Your task to perform on an android device: Open Yahoo.com Image 0: 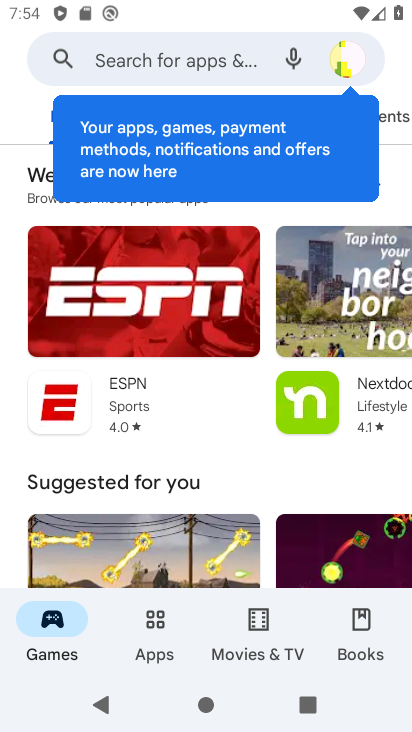
Step 0: press home button
Your task to perform on an android device: Open Yahoo.com Image 1: 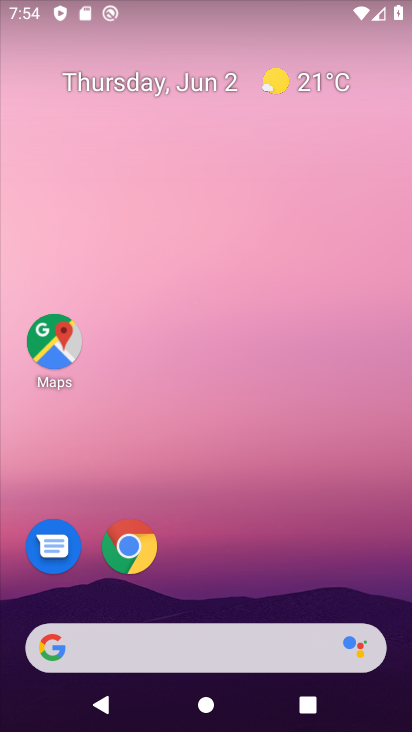
Step 1: click (231, 647)
Your task to perform on an android device: Open Yahoo.com Image 2: 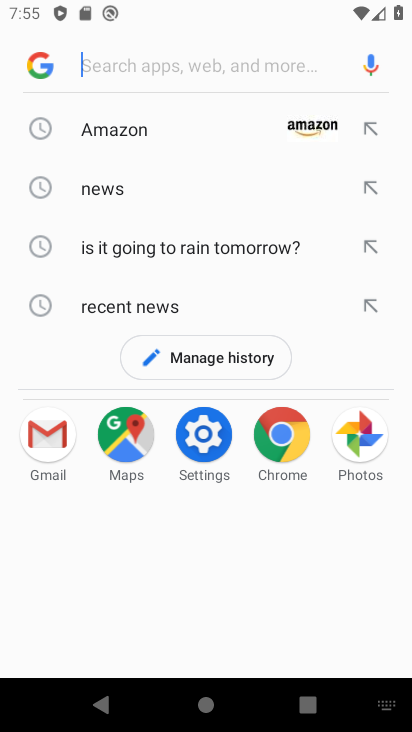
Step 2: type "yahoo.com"
Your task to perform on an android device: Open Yahoo.com Image 3: 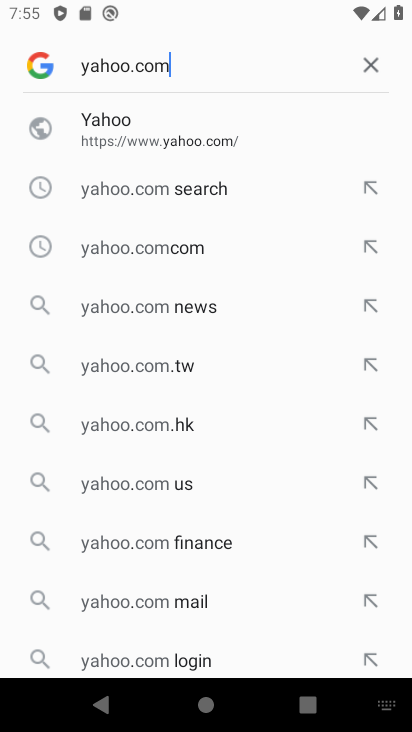
Step 3: click (87, 121)
Your task to perform on an android device: Open Yahoo.com Image 4: 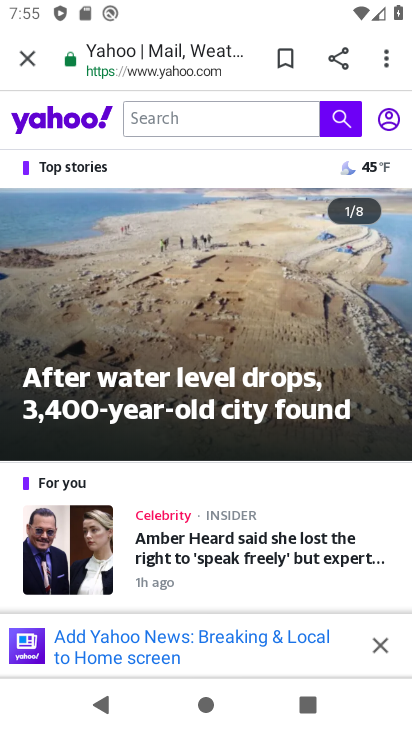
Step 4: click (268, 385)
Your task to perform on an android device: Open Yahoo.com Image 5: 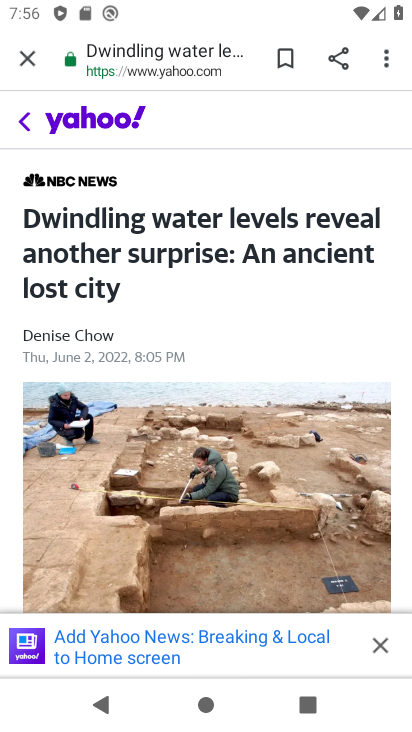
Step 5: task complete